Your task to perform on an android device: turn off wifi Image 0: 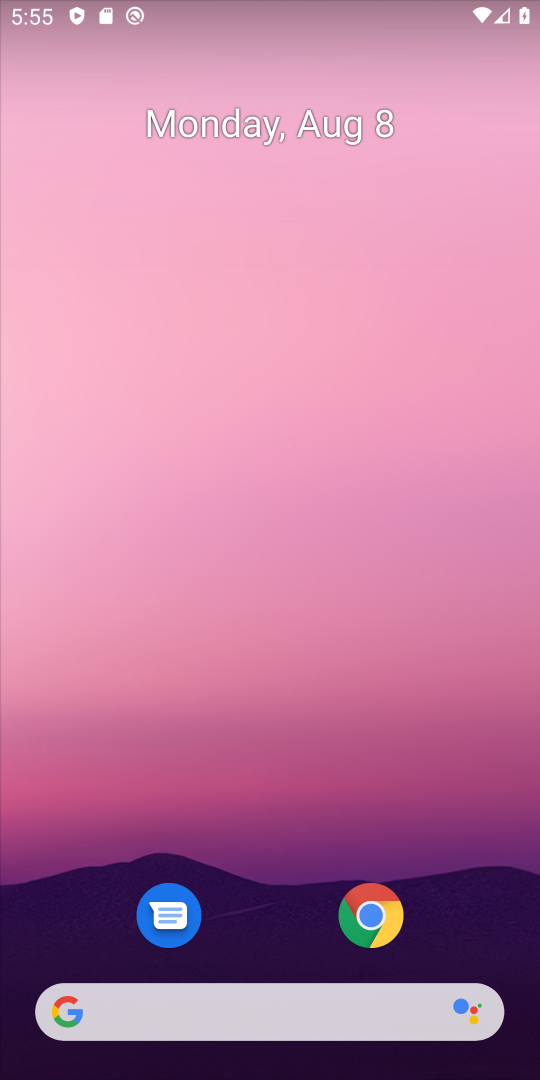
Step 0: drag from (261, 838) to (221, 126)
Your task to perform on an android device: turn off wifi Image 1: 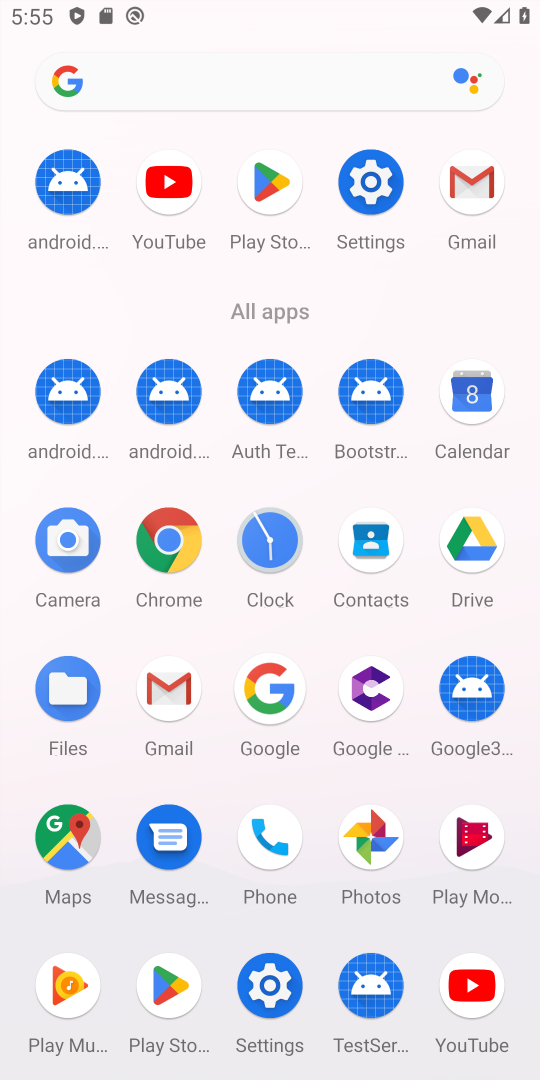
Step 1: click (368, 185)
Your task to perform on an android device: turn off wifi Image 2: 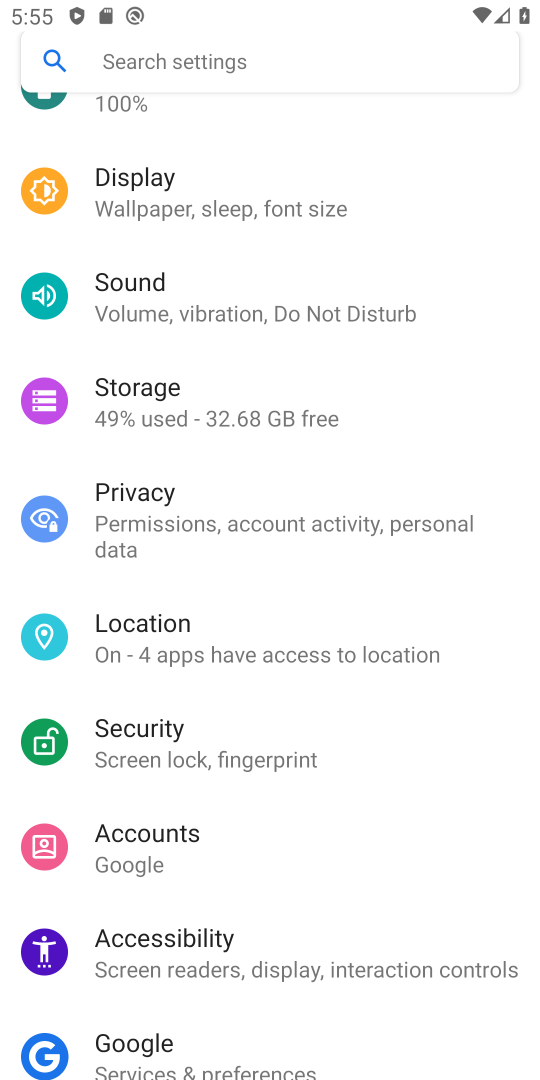
Step 2: drag from (287, 172) to (334, 652)
Your task to perform on an android device: turn off wifi Image 3: 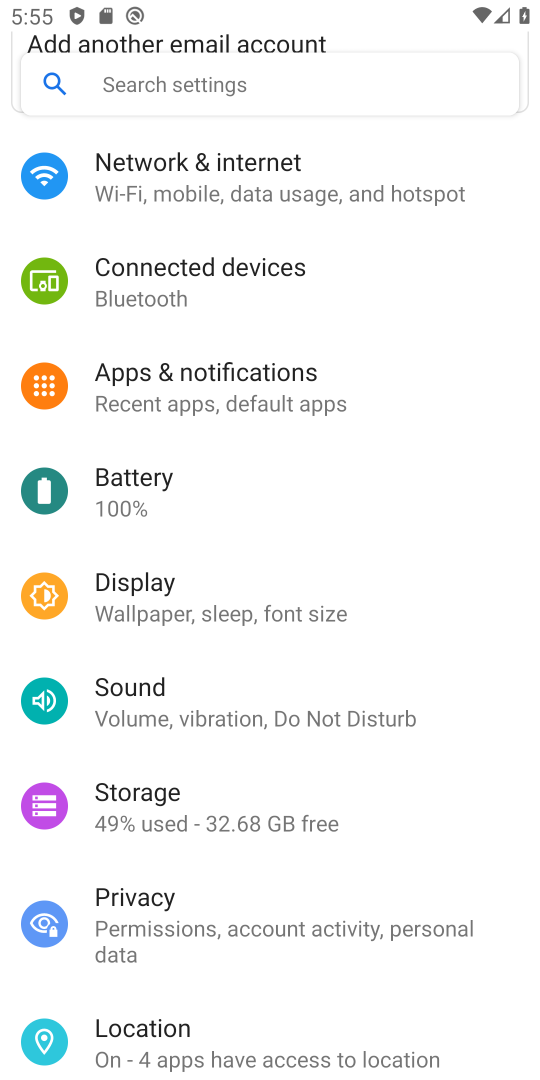
Step 3: click (197, 167)
Your task to perform on an android device: turn off wifi Image 4: 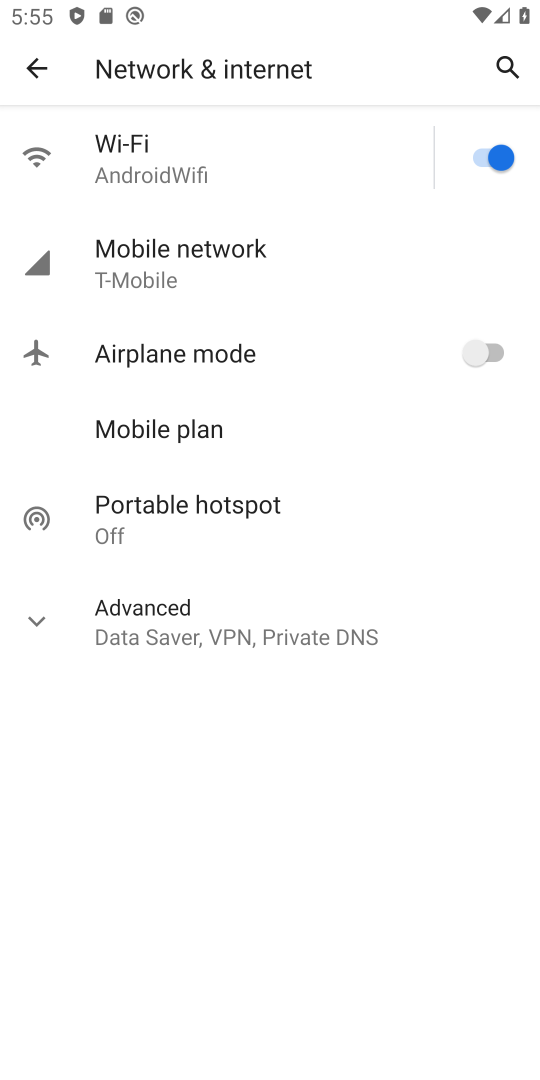
Step 4: click (493, 154)
Your task to perform on an android device: turn off wifi Image 5: 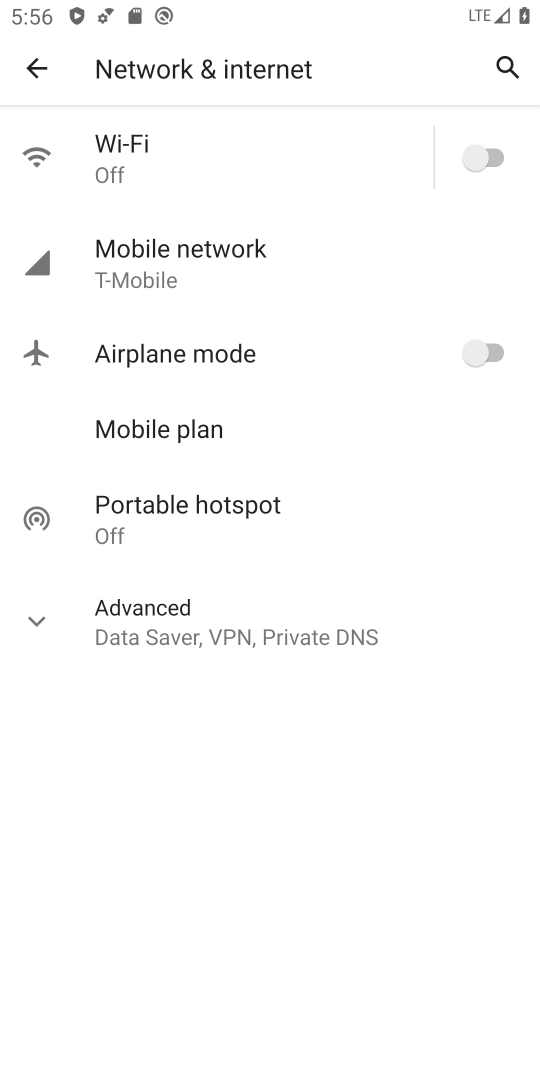
Step 5: task complete